Your task to perform on an android device: Open Yahoo.com Image 0: 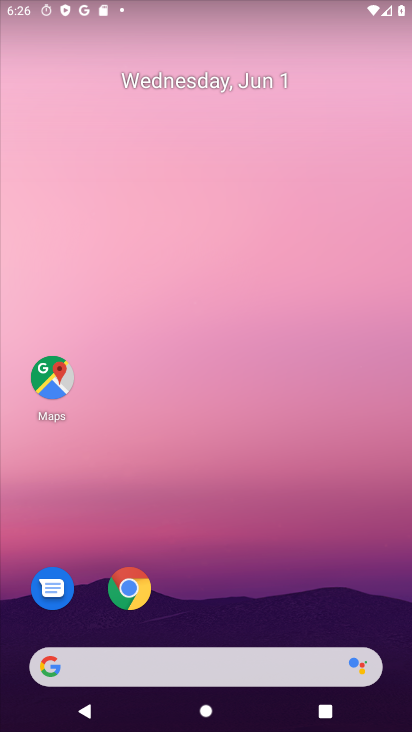
Step 0: click (129, 588)
Your task to perform on an android device: Open Yahoo.com Image 1: 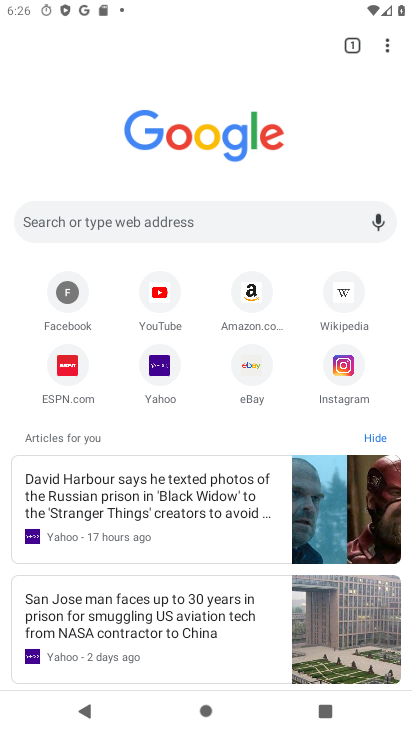
Step 1: click (173, 384)
Your task to perform on an android device: Open Yahoo.com Image 2: 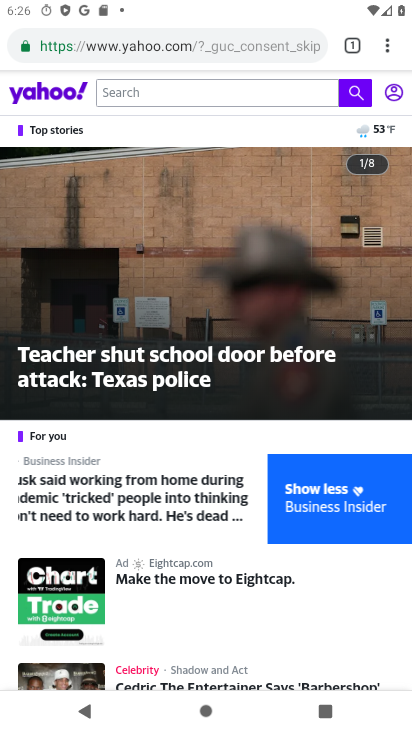
Step 2: task complete